Your task to perform on an android device: turn off javascript in the chrome app Image 0: 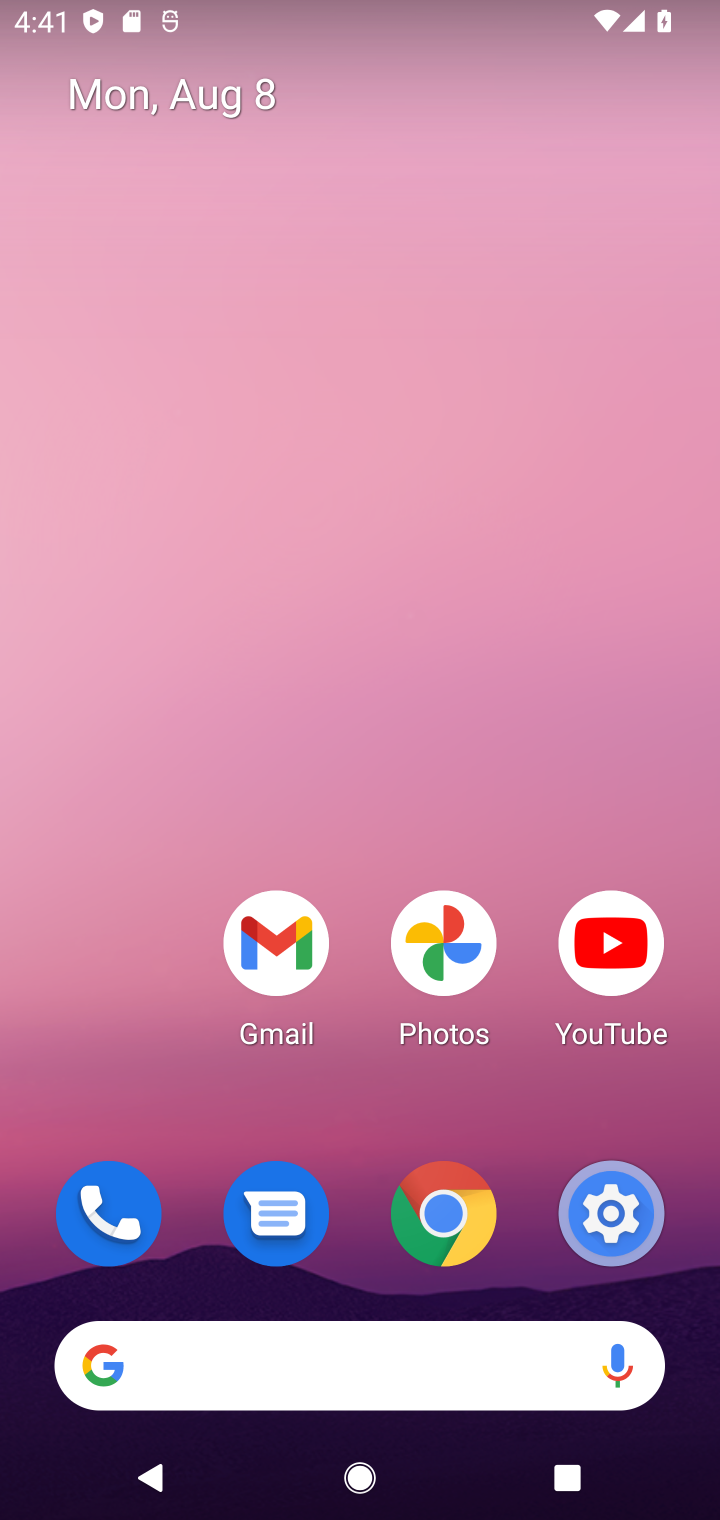
Step 0: click (460, 1204)
Your task to perform on an android device: turn off javascript in the chrome app Image 1: 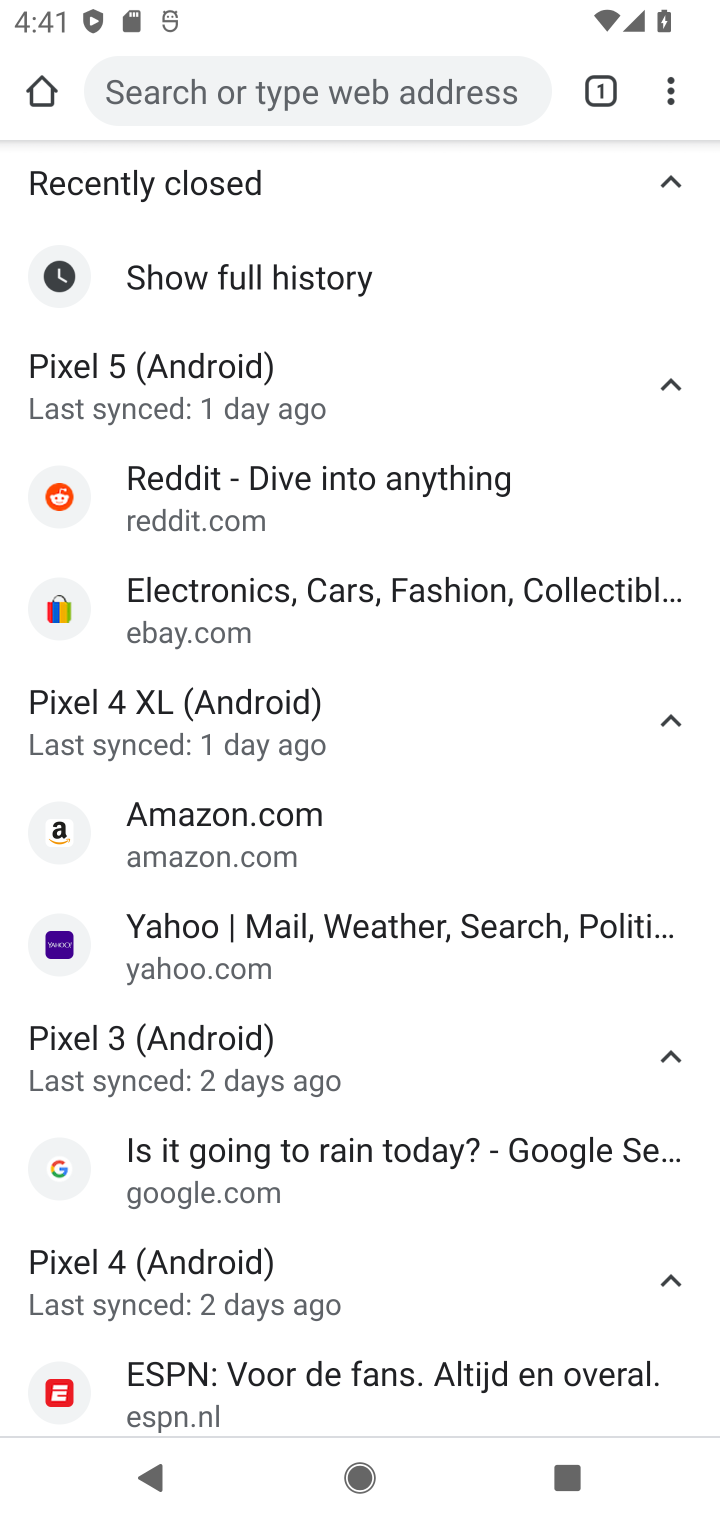
Step 1: click (665, 98)
Your task to perform on an android device: turn off javascript in the chrome app Image 2: 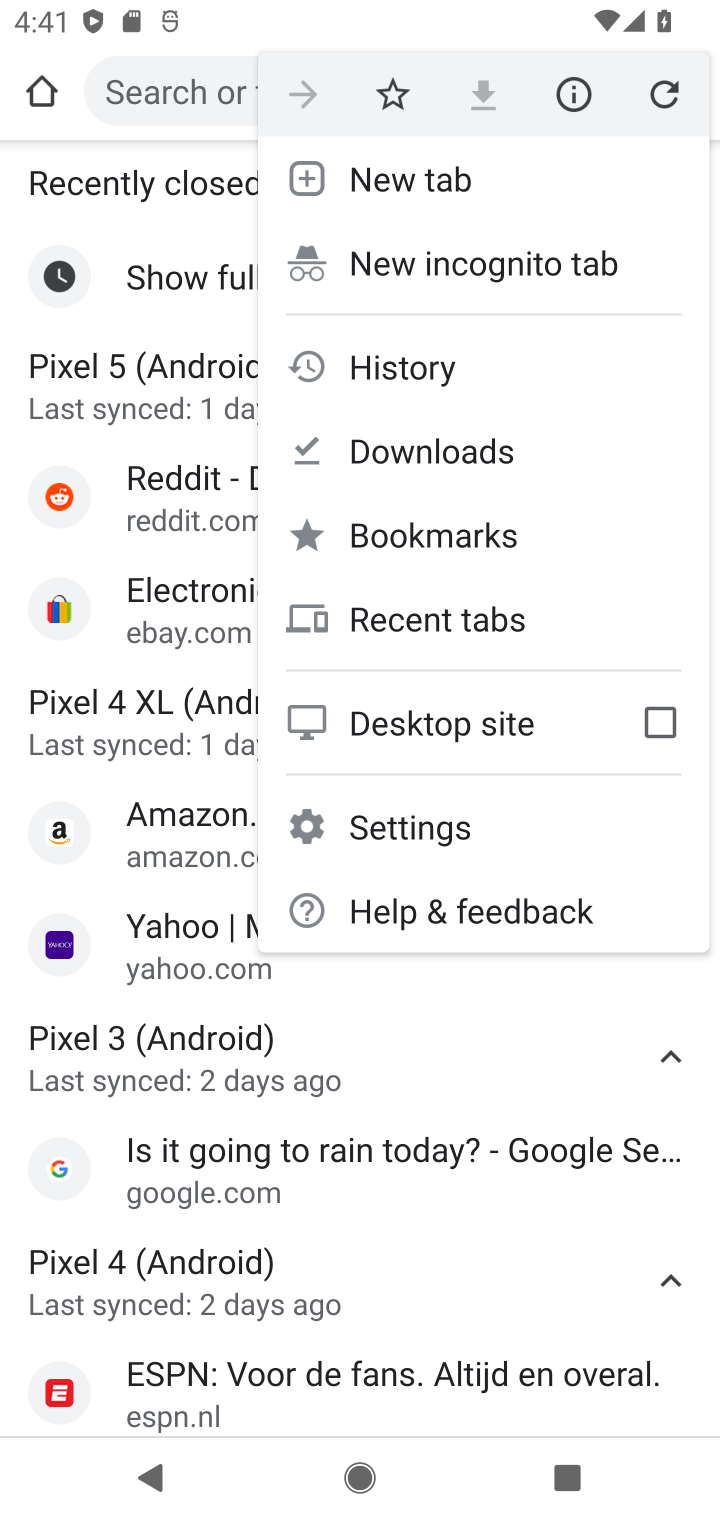
Step 2: click (462, 828)
Your task to perform on an android device: turn off javascript in the chrome app Image 3: 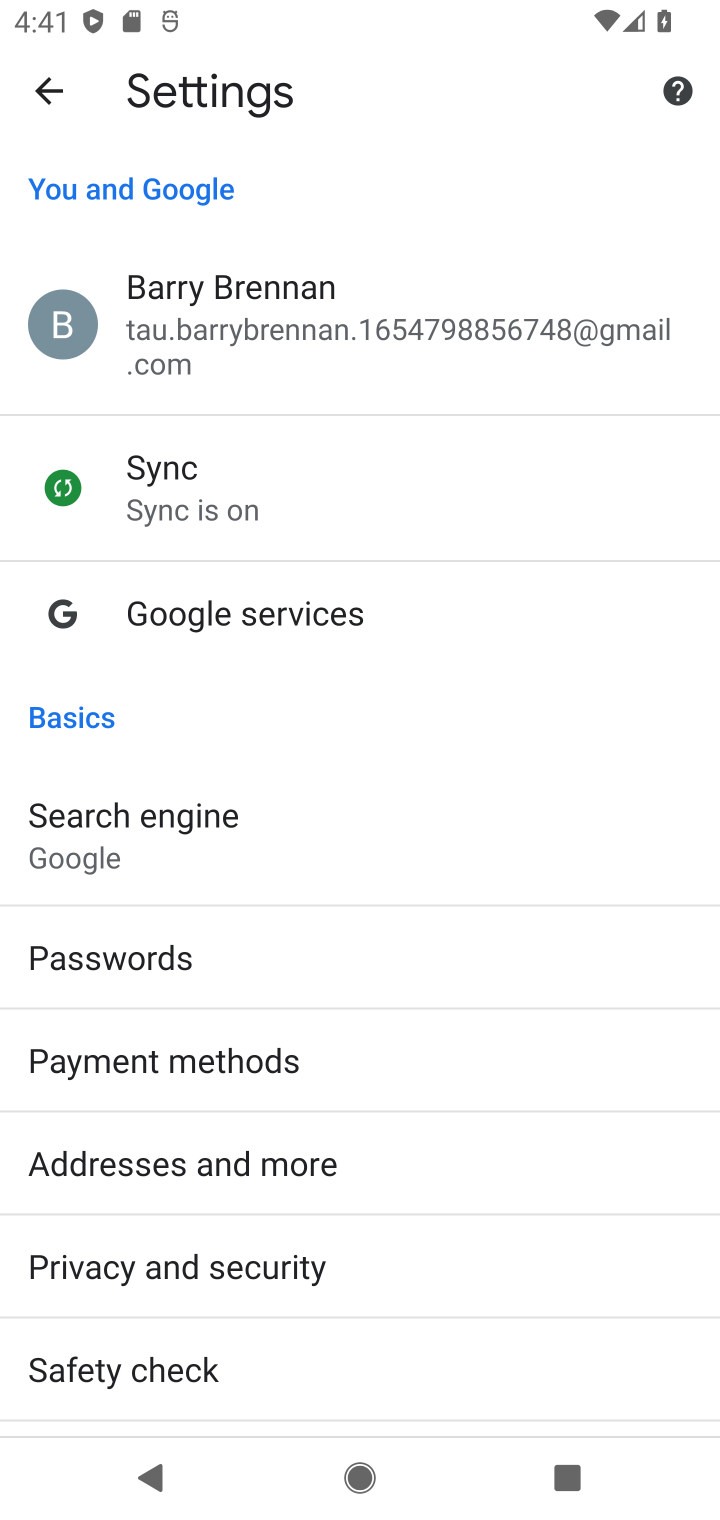
Step 3: drag from (204, 1288) to (198, 594)
Your task to perform on an android device: turn off javascript in the chrome app Image 4: 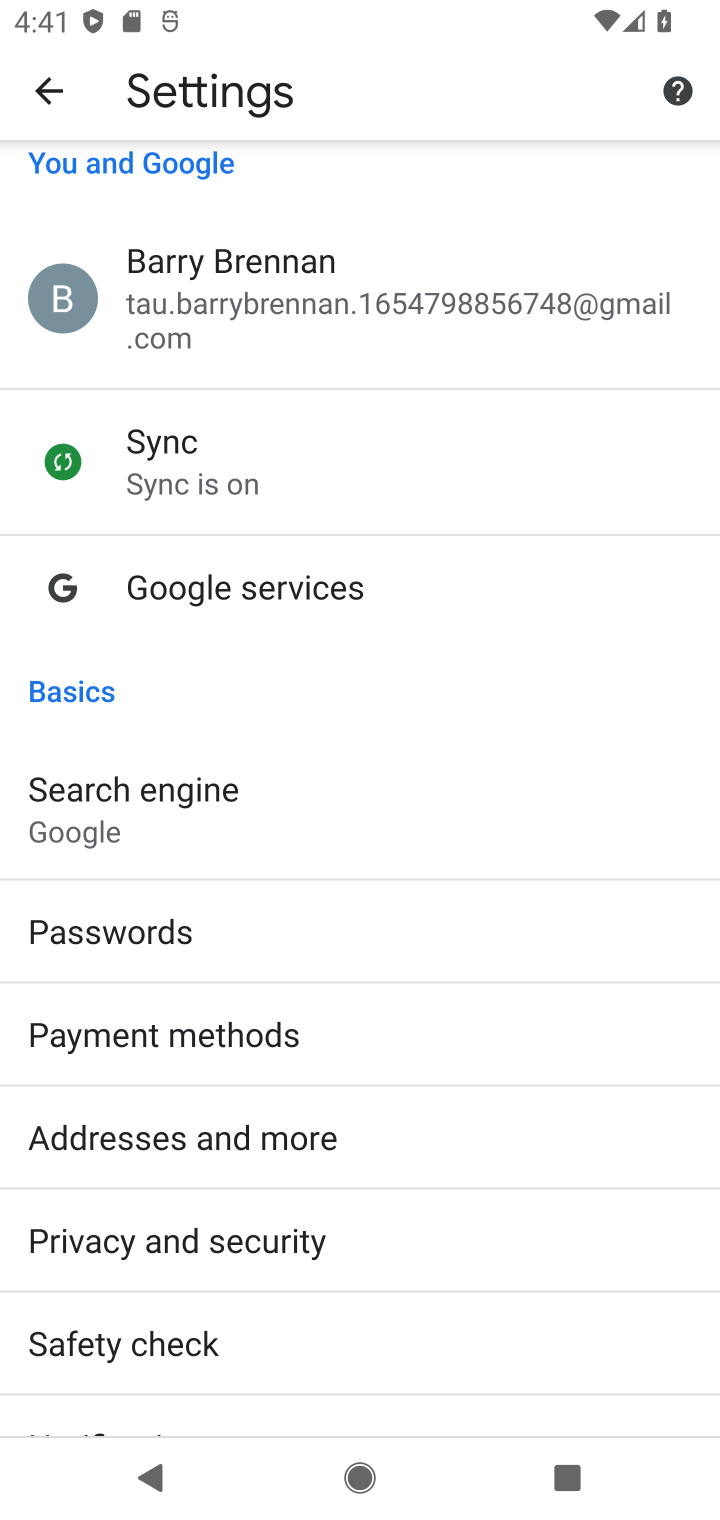
Step 4: drag from (327, 1091) to (301, 626)
Your task to perform on an android device: turn off javascript in the chrome app Image 5: 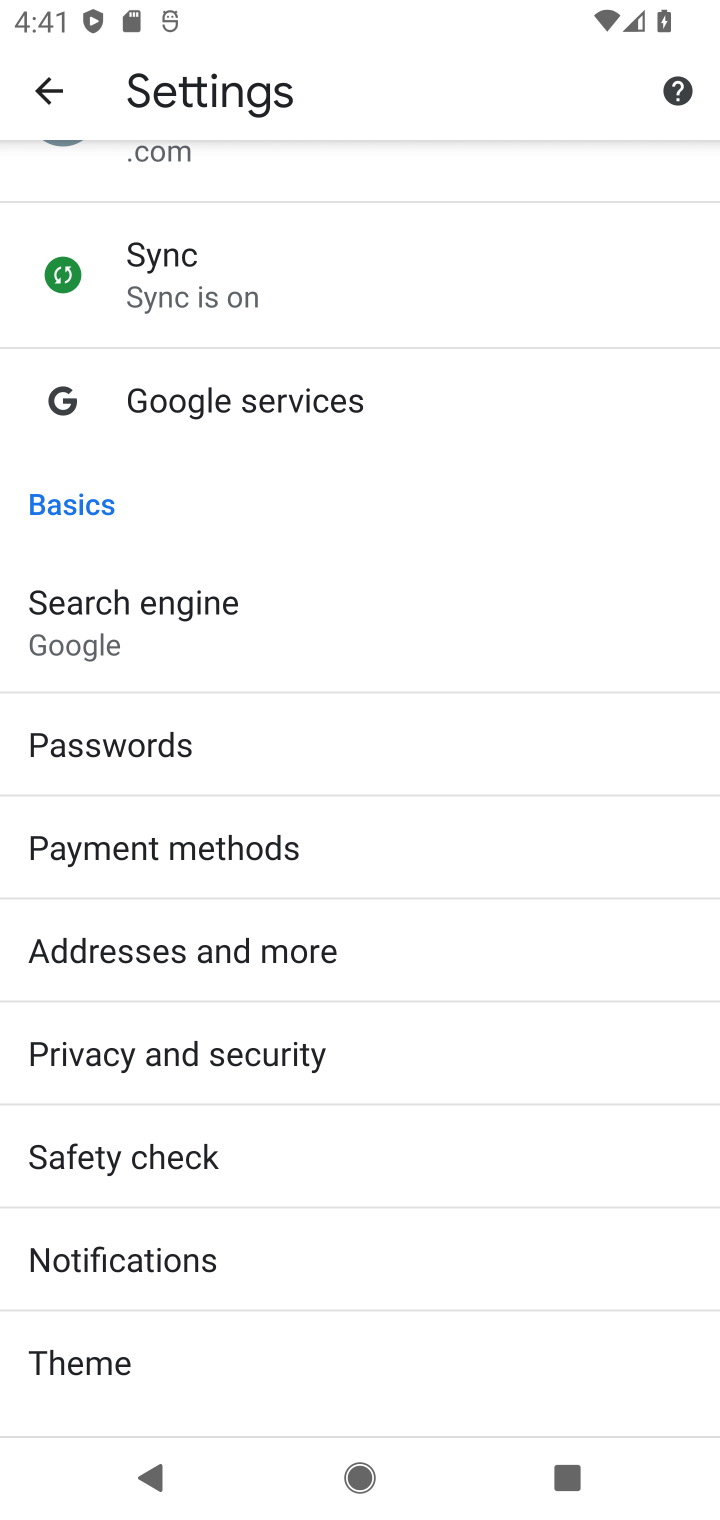
Step 5: drag from (401, 1218) to (371, 551)
Your task to perform on an android device: turn off javascript in the chrome app Image 6: 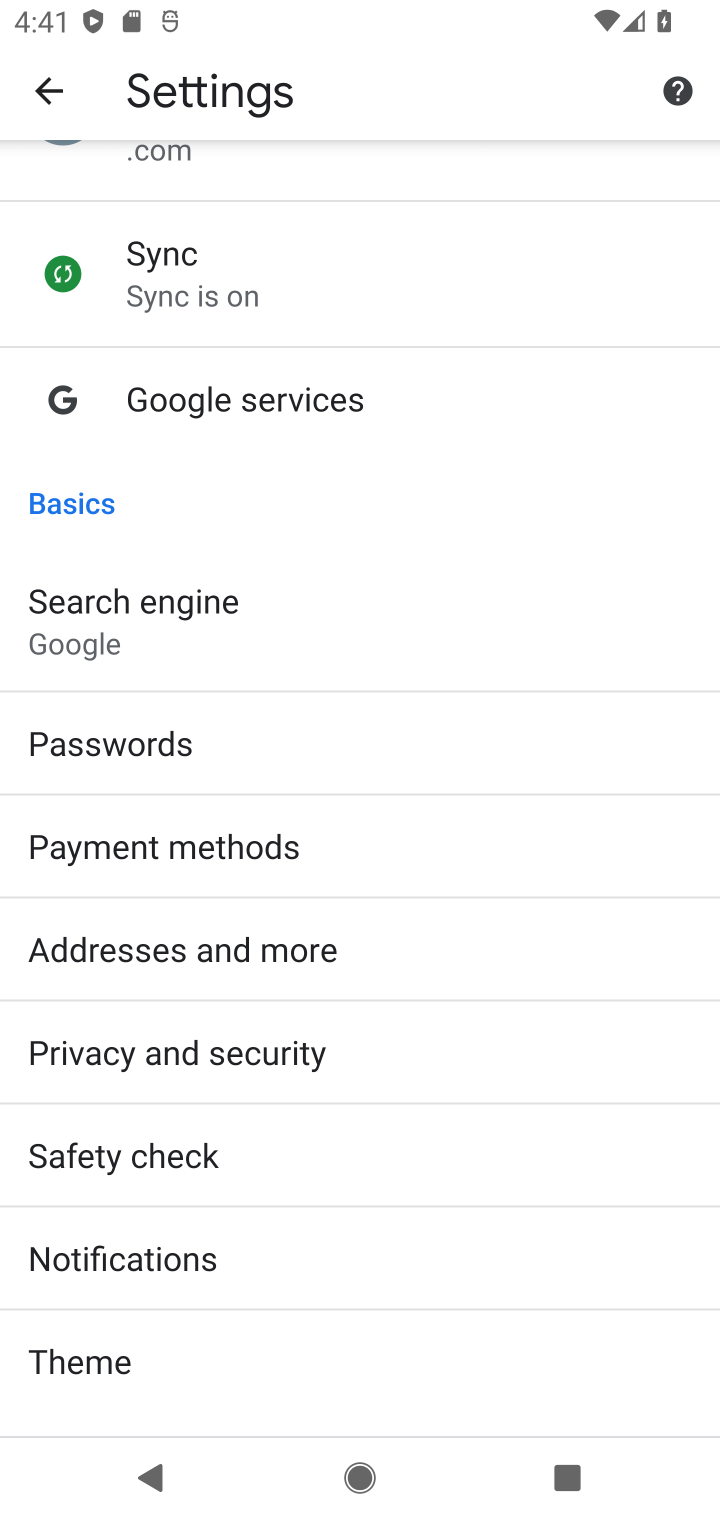
Step 6: drag from (313, 1179) to (298, 345)
Your task to perform on an android device: turn off javascript in the chrome app Image 7: 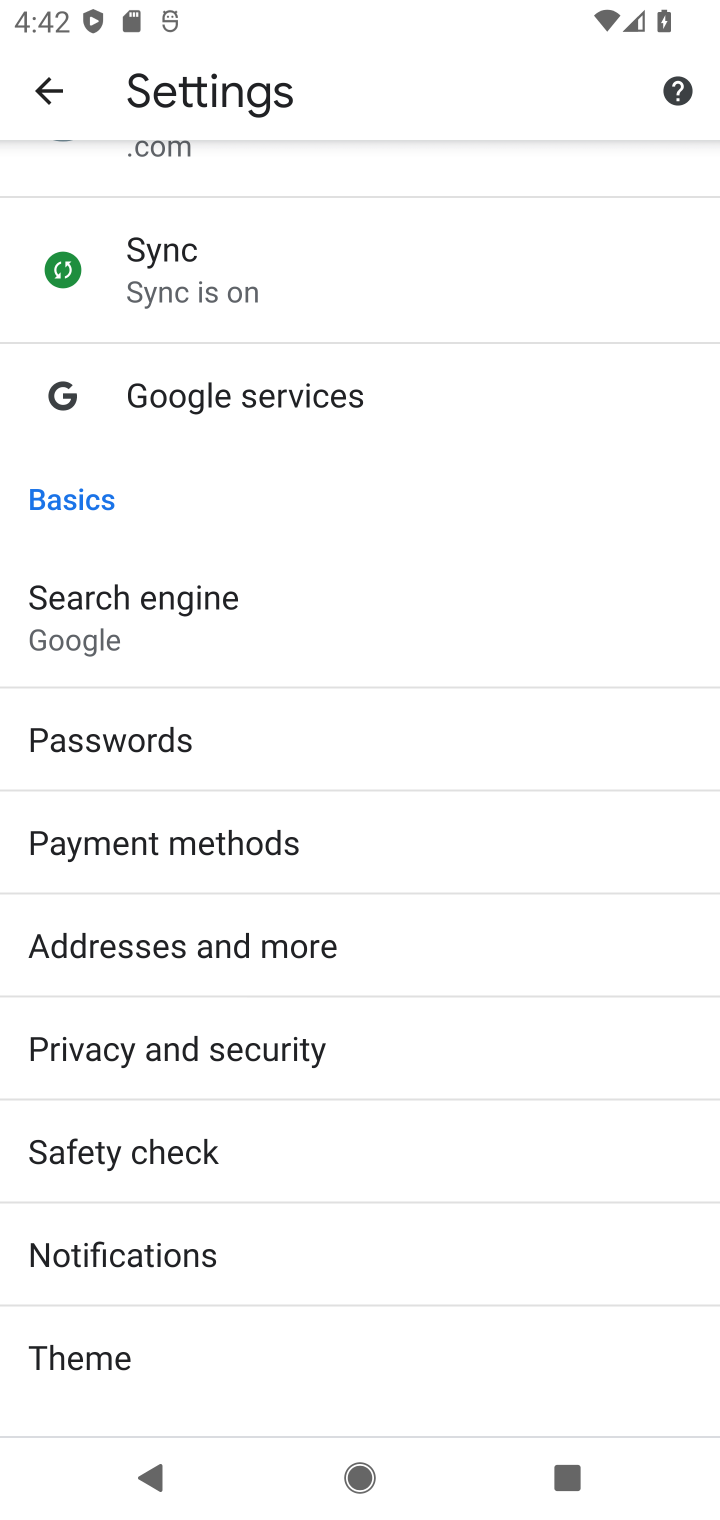
Step 7: drag from (402, 1227) to (390, 26)
Your task to perform on an android device: turn off javascript in the chrome app Image 8: 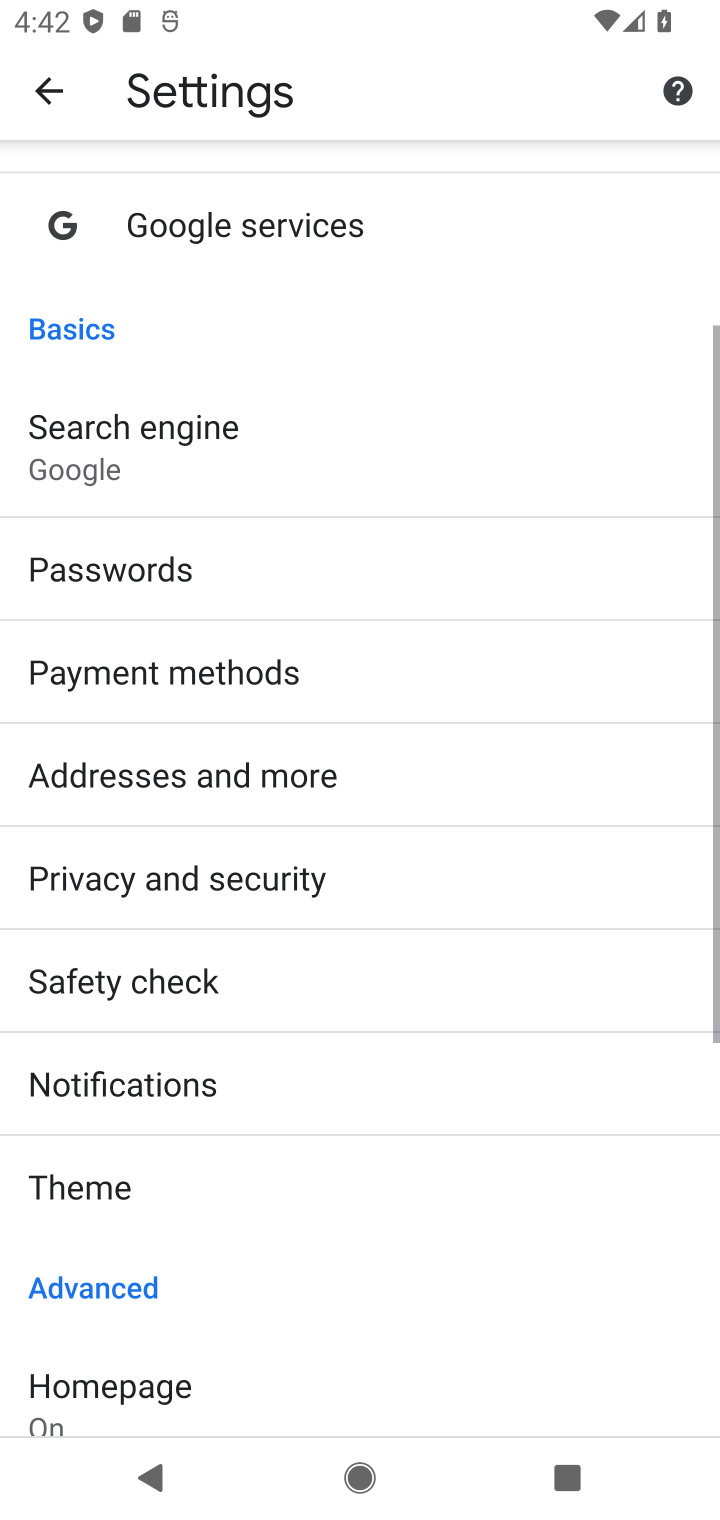
Step 8: drag from (405, 982) to (380, 479)
Your task to perform on an android device: turn off javascript in the chrome app Image 9: 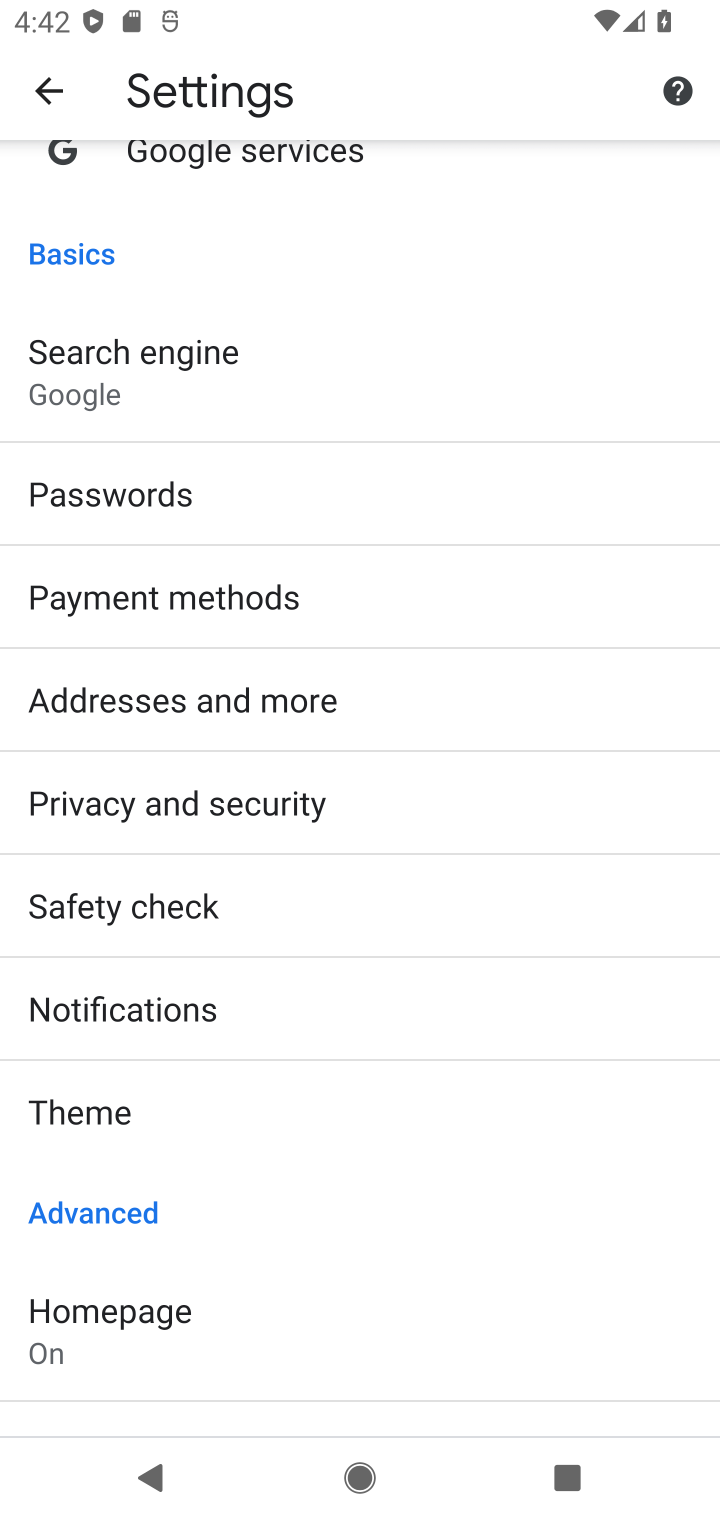
Step 9: drag from (353, 1043) to (326, 755)
Your task to perform on an android device: turn off javascript in the chrome app Image 10: 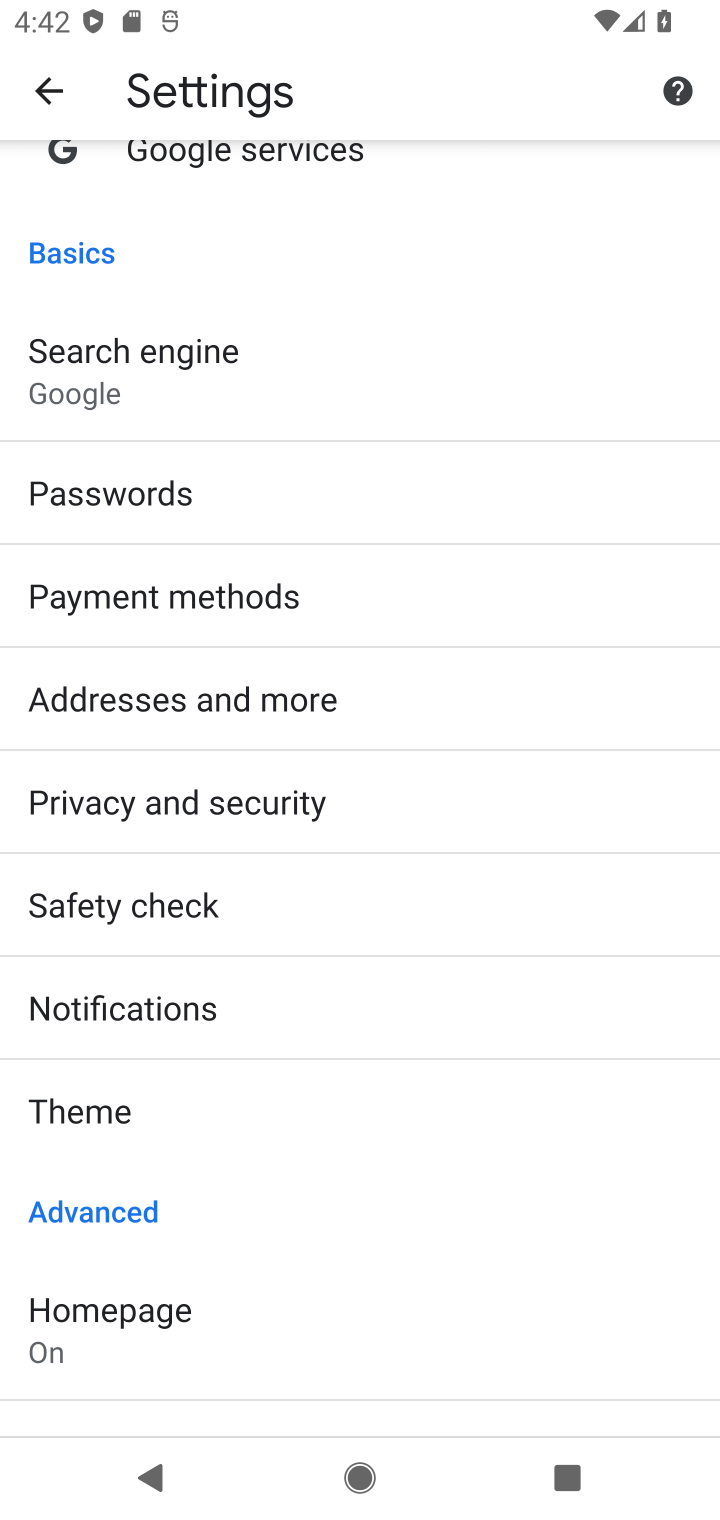
Step 10: drag from (387, 1293) to (374, 580)
Your task to perform on an android device: turn off javascript in the chrome app Image 11: 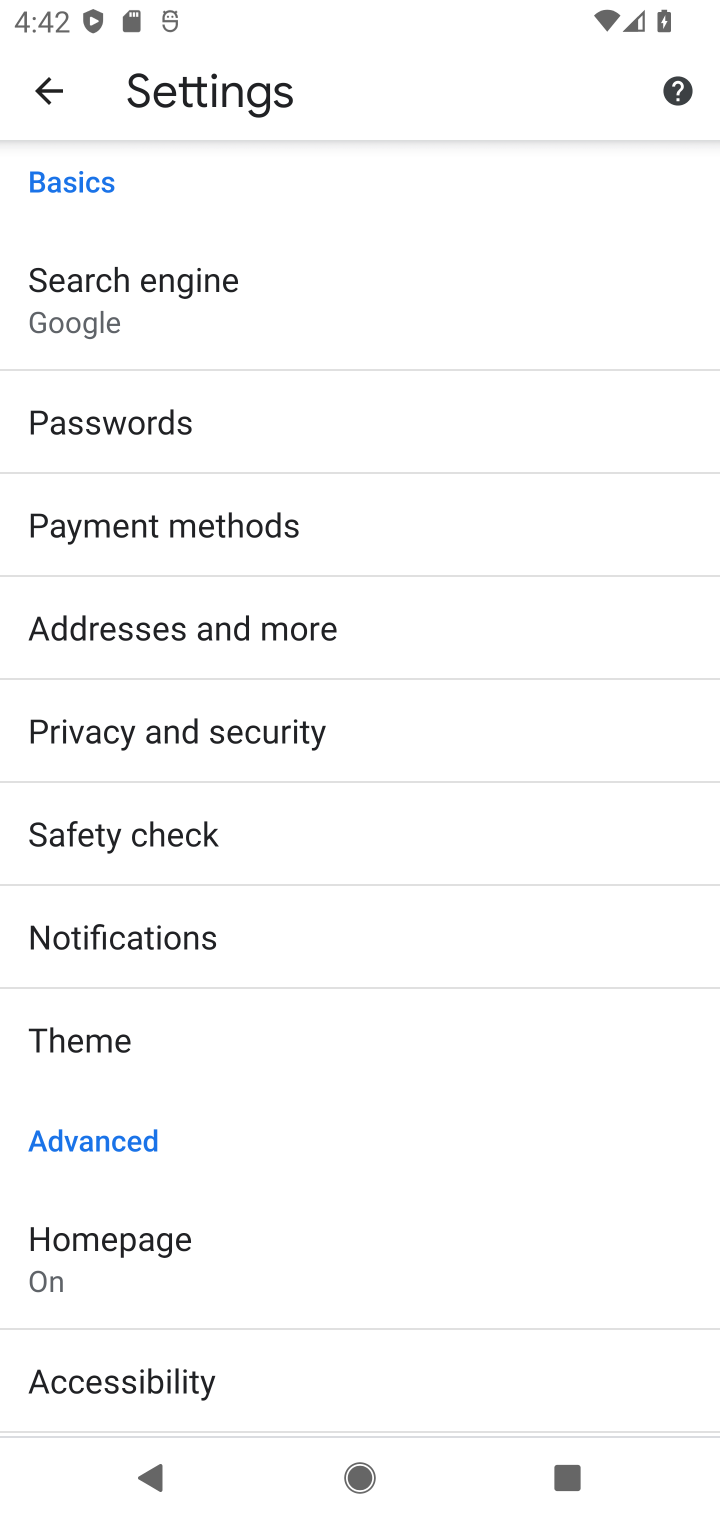
Step 11: drag from (311, 1121) to (308, 497)
Your task to perform on an android device: turn off javascript in the chrome app Image 12: 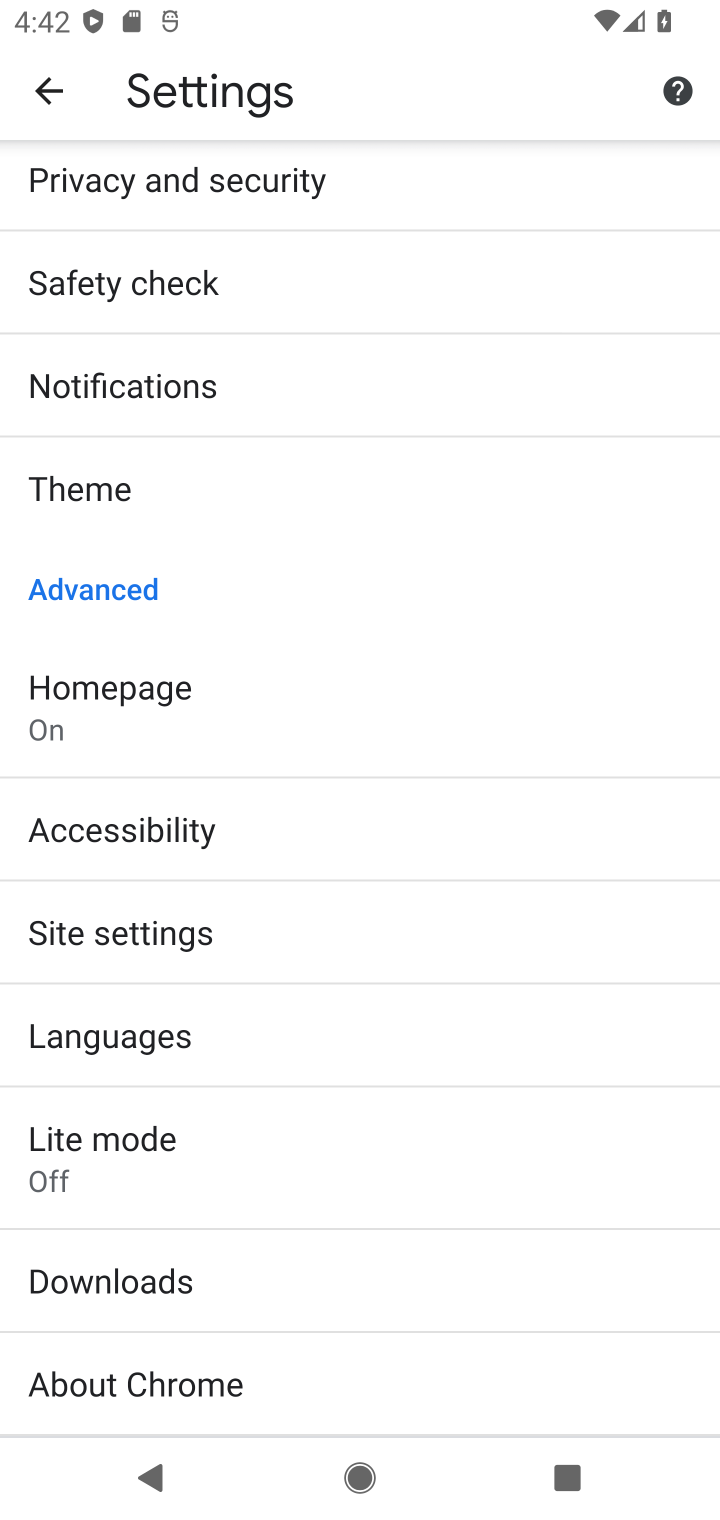
Step 12: click (364, 940)
Your task to perform on an android device: turn off javascript in the chrome app Image 13: 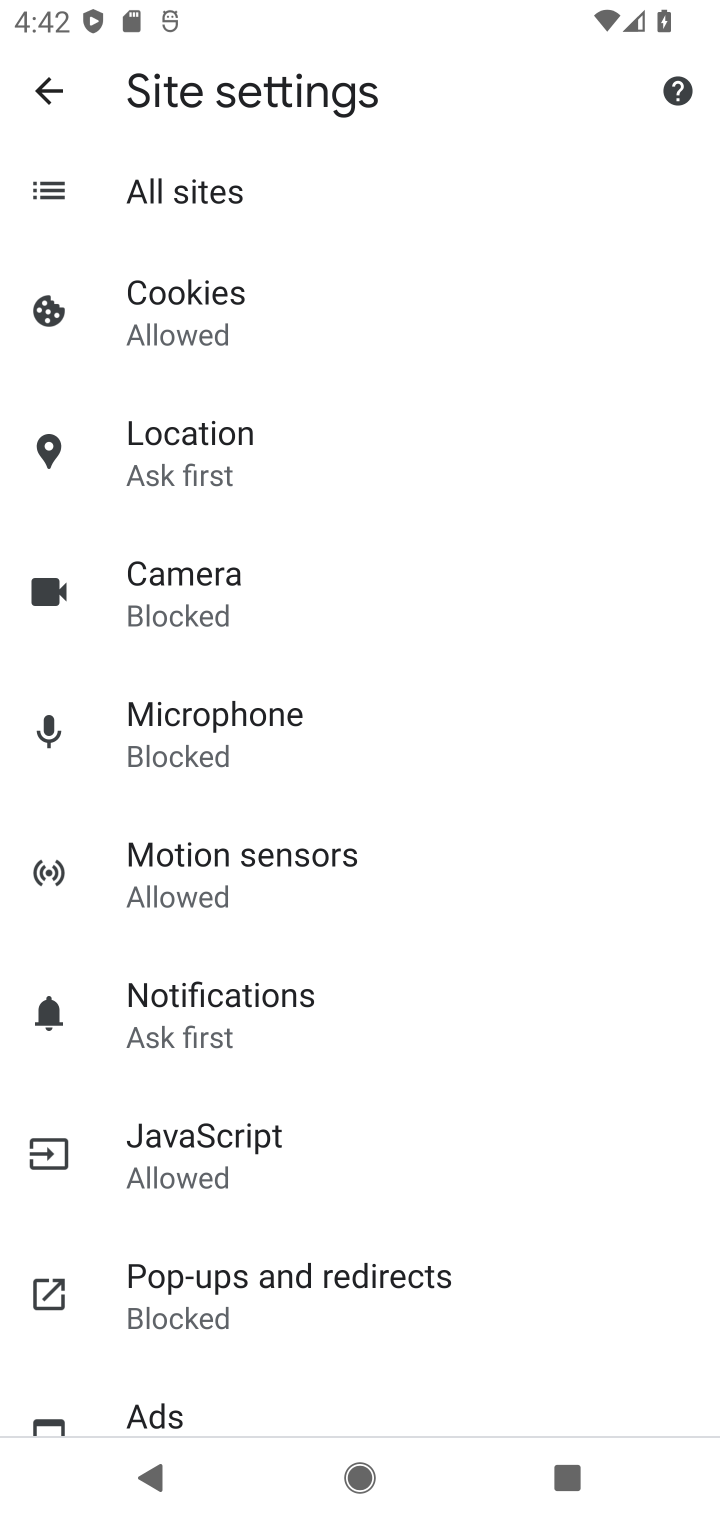
Step 13: click (265, 1185)
Your task to perform on an android device: turn off javascript in the chrome app Image 14: 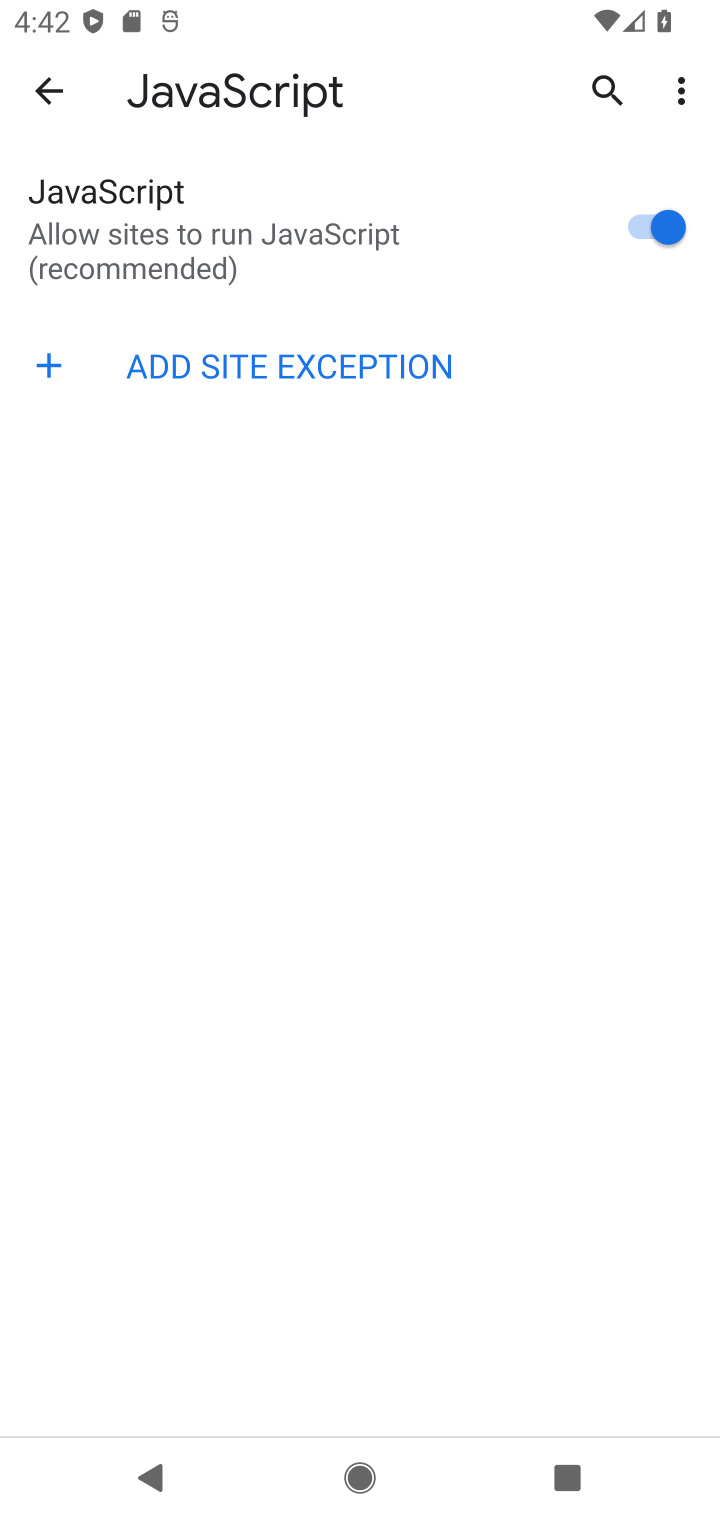
Step 14: click (648, 229)
Your task to perform on an android device: turn off javascript in the chrome app Image 15: 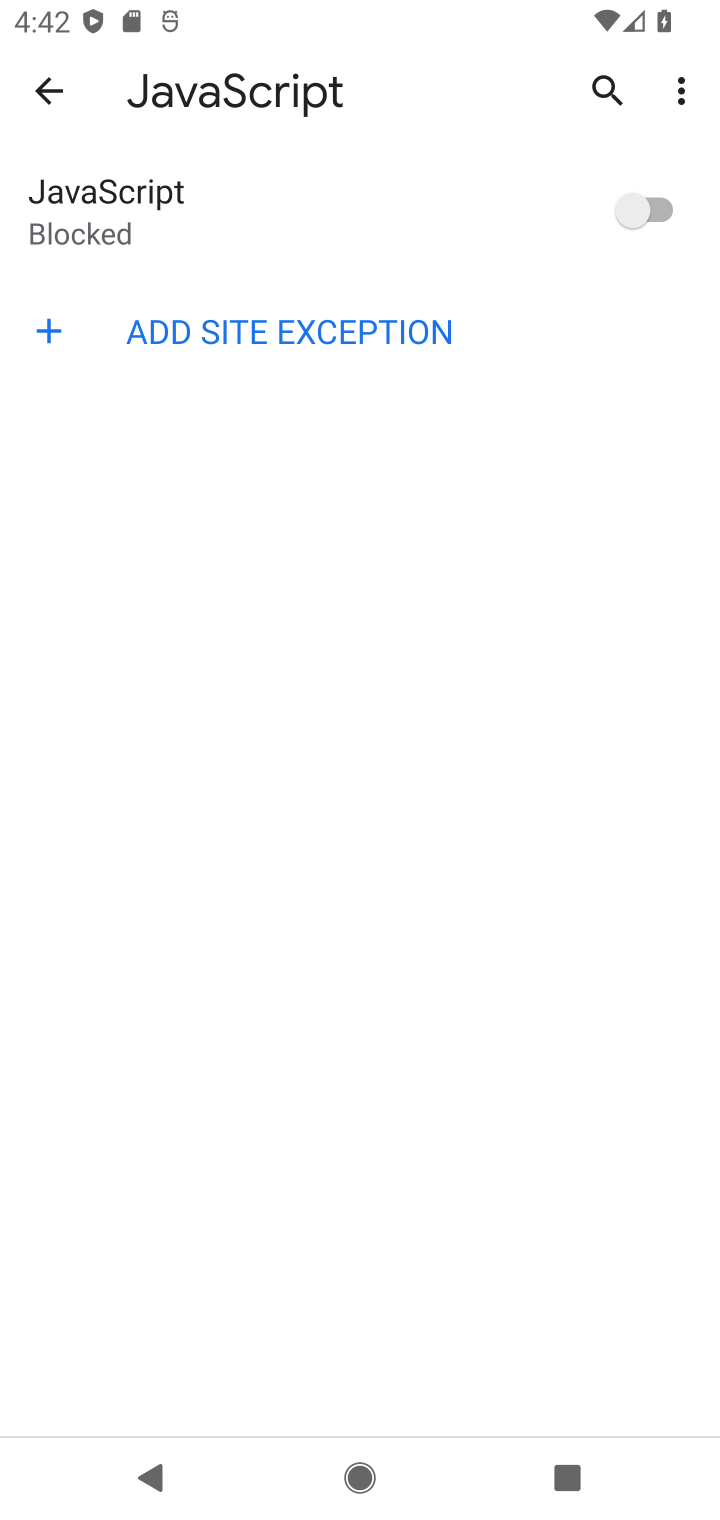
Step 15: task complete